Your task to perform on an android device: Open Google Chrome Image 0: 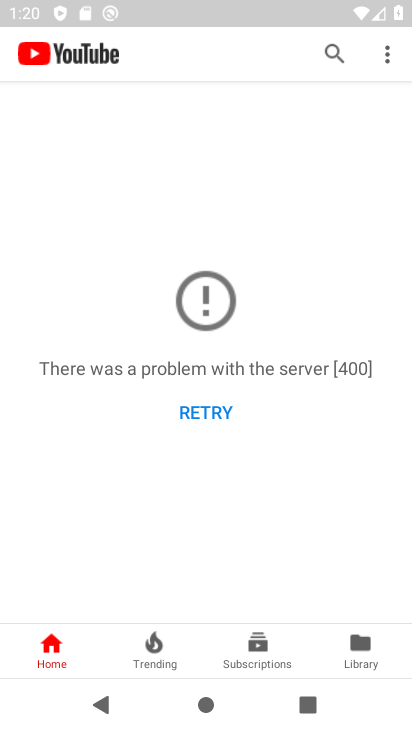
Step 0: press home button
Your task to perform on an android device: Open Google Chrome Image 1: 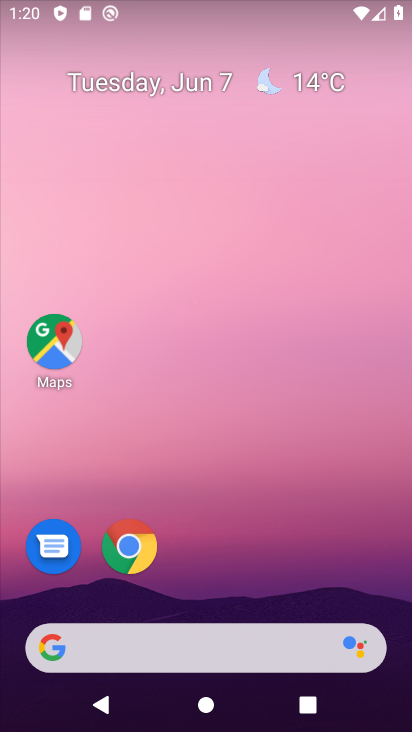
Step 1: click (142, 551)
Your task to perform on an android device: Open Google Chrome Image 2: 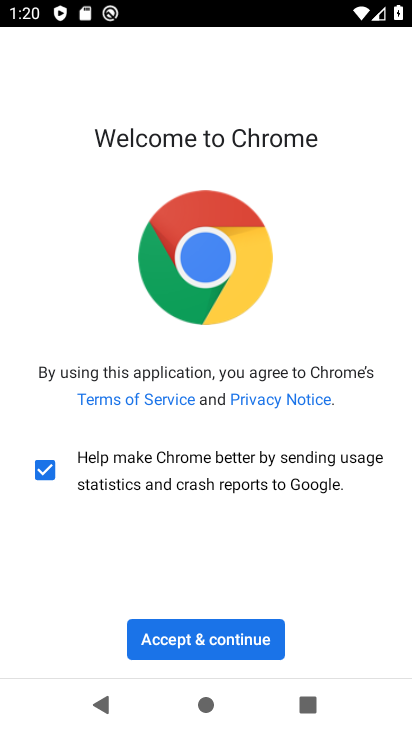
Step 2: click (274, 644)
Your task to perform on an android device: Open Google Chrome Image 3: 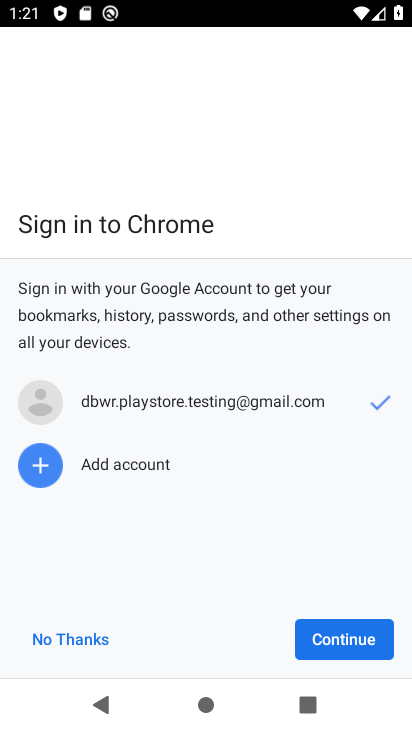
Step 3: click (333, 650)
Your task to perform on an android device: Open Google Chrome Image 4: 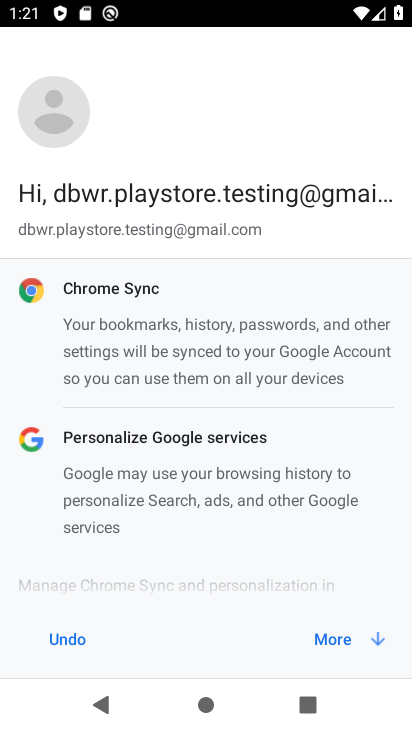
Step 4: click (333, 650)
Your task to perform on an android device: Open Google Chrome Image 5: 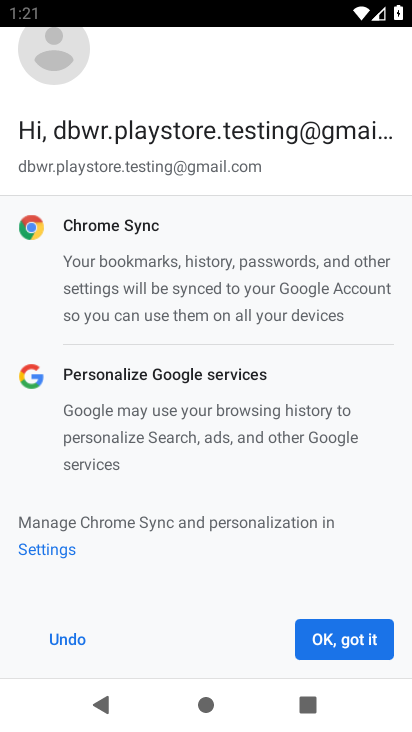
Step 5: click (333, 650)
Your task to perform on an android device: Open Google Chrome Image 6: 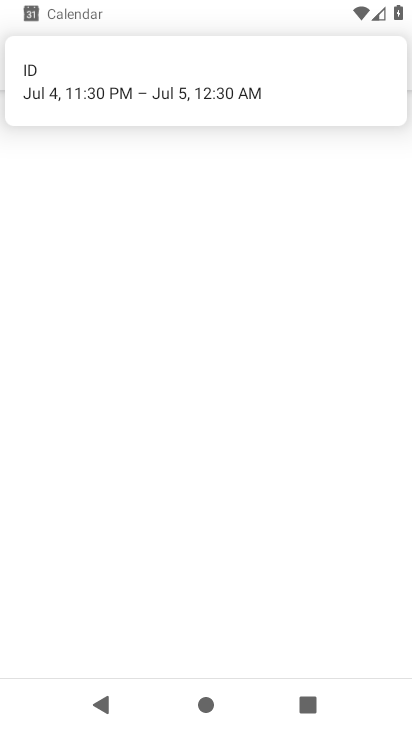
Step 6: task complete